Your task to perform on an android device: Open display settings Image 0: 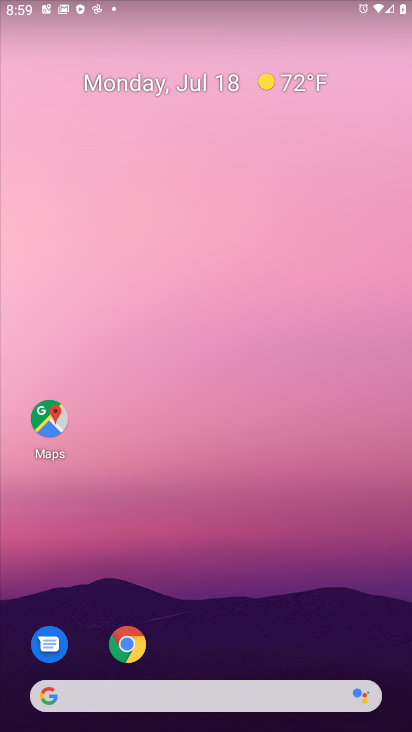
Step 0: drag from (371, 653) to (237, 136)
Your task to perform on an android device: Open display settings Image 1: 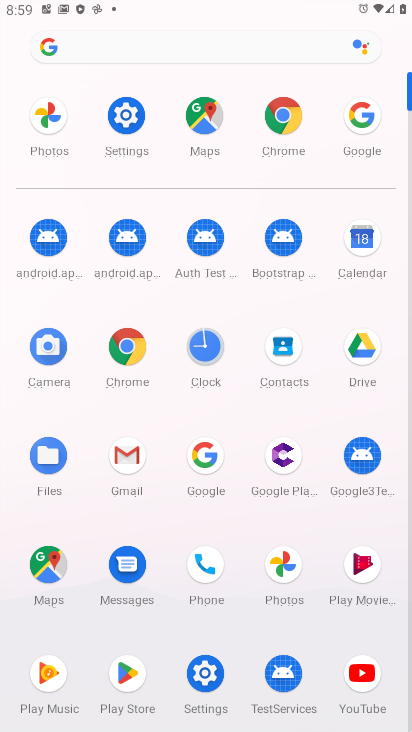
Step 1: click (190, 700)
Your task to perform on an android device: Open display settings Image 2: 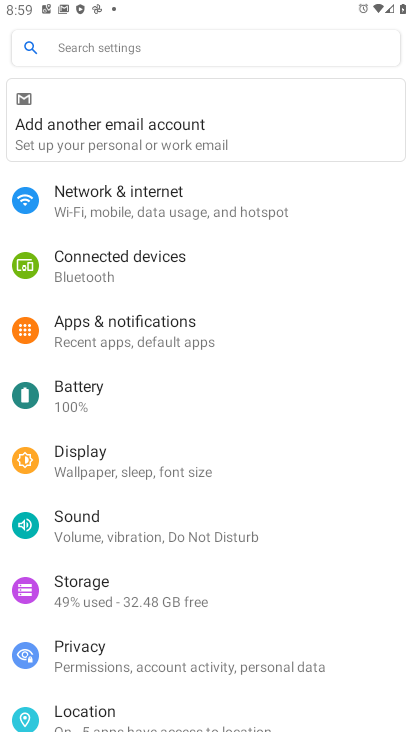
Step 2: click (92, 469)
Your task to perform on an android device: Open display settings Image 3: 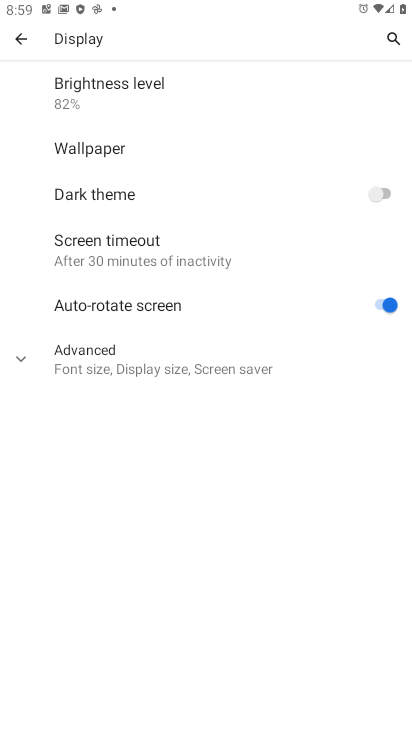
Step 3: task complete